Your task to perform on an android device: Open eBay Image 0: 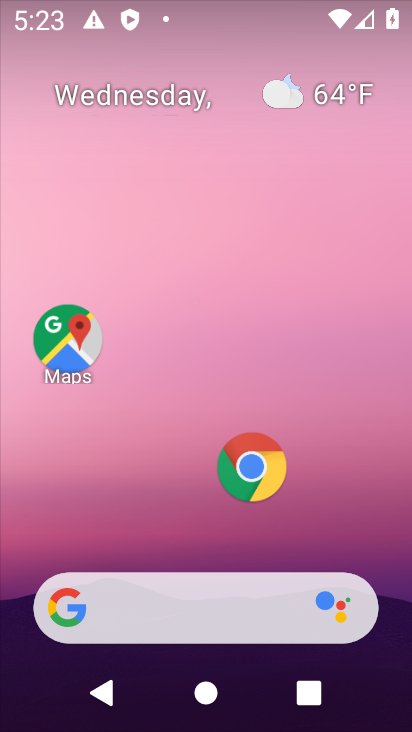
Step 0: click (256, 471)
Your task to perform on an android device: Open eBay Image 1: 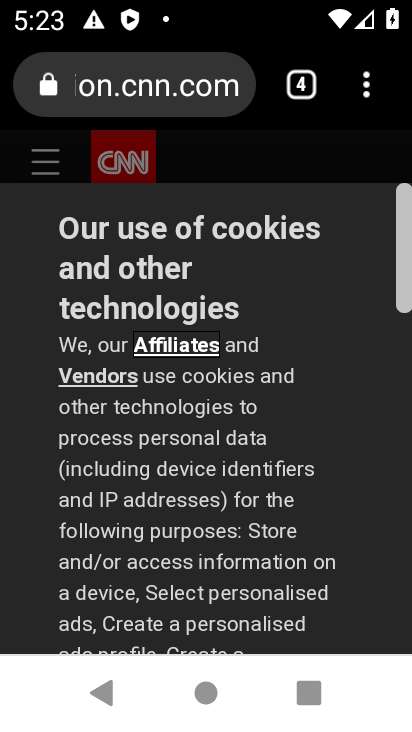
Step 1: task complete